Your task to perform on an android device: set an alarm Image 0: 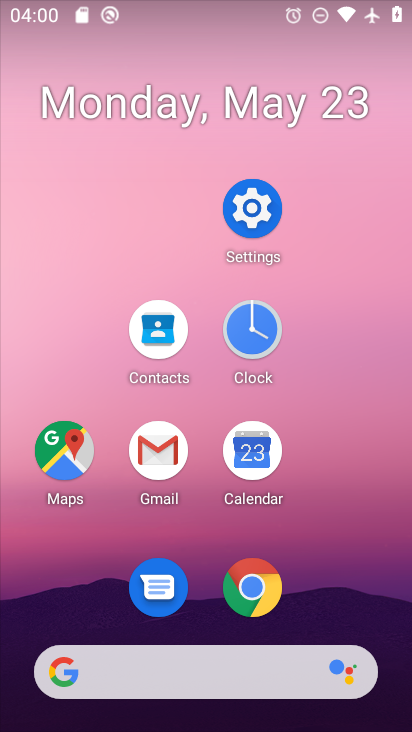
Step 0: click (255, 336)
Your task to perform on an android device: set an alarm Image 1: 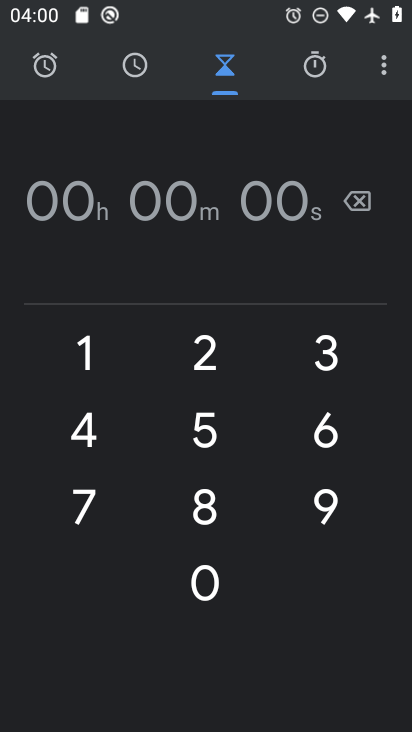
Step 1: click (45, 70)
Your task to perform on an android device: set an alarm Image 2: 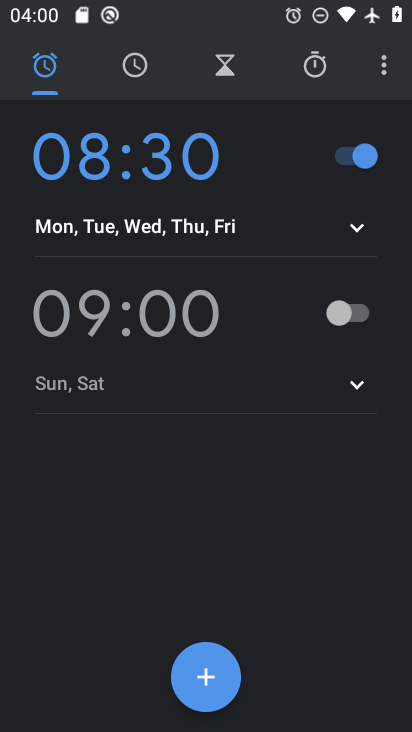
Step 2: task complete